Your task to perform on an android device: toggle translation in the chrome app Image 0: 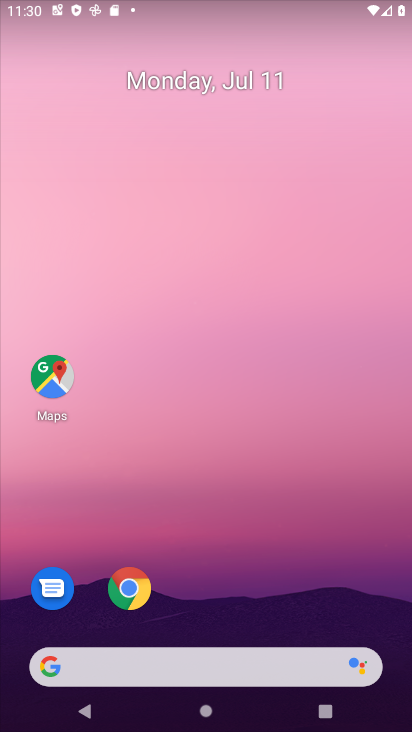
Step 0: click (123, 593)
Your task to perform on an android device: toggle translation in the chrome app Image 1: 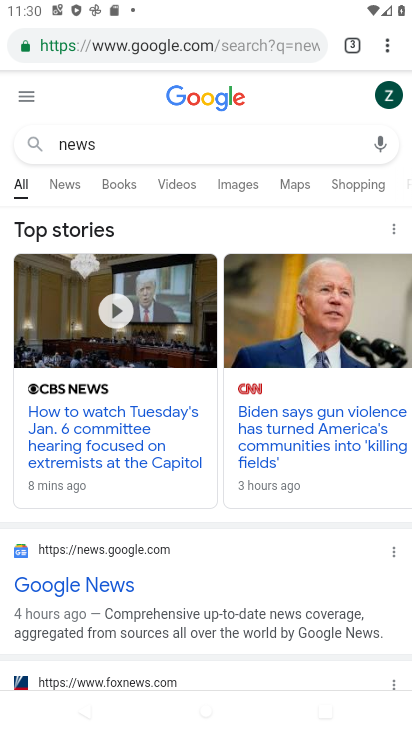
Step 1: click (386, 46)
Your task to perform on an android device: toggle translation in the chrome app Image 2: 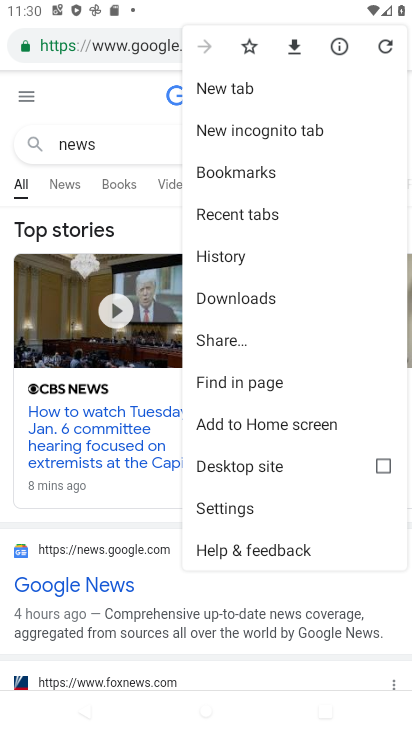
Step 2: click (215, 506)
Your task to perform on an android device: toggle translation in the chrome app Image 3: 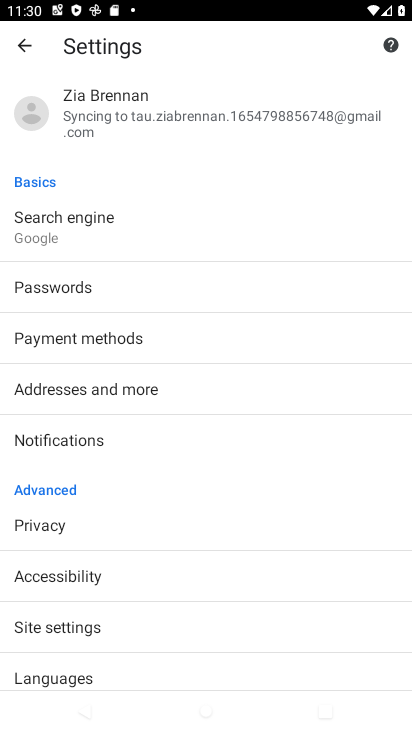
Step 3: click (99, 686)
Your task to perform on an android device: toggle translation in the chrome app Image 4: 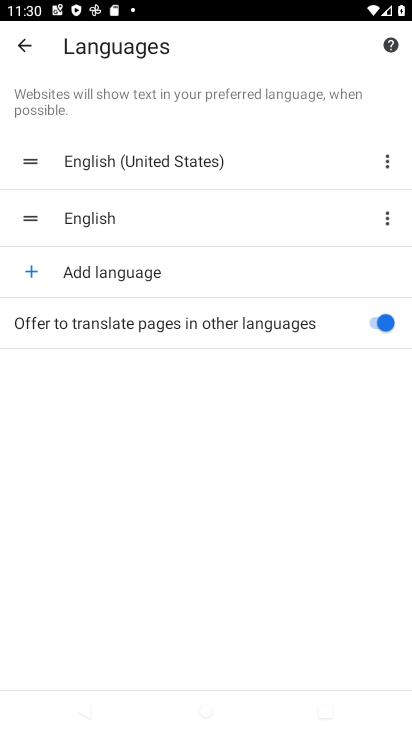
Step 4: click (374, 322)
Your task to perform on an android device: toggle translation in the chrome app Image 5: 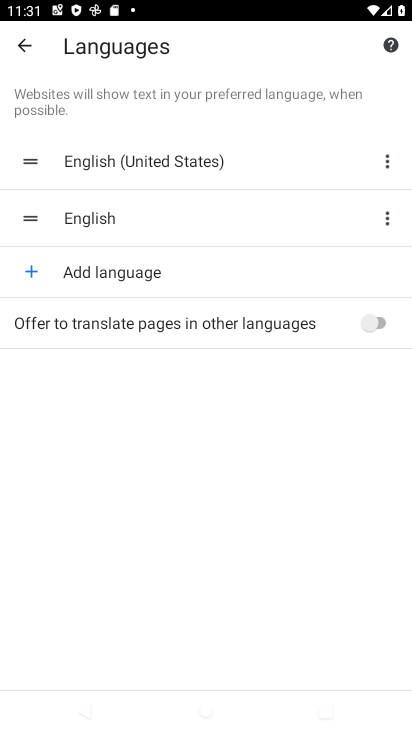
Step 5: task complete